Your task to perform on an android device: Open Google Maps Image 0: 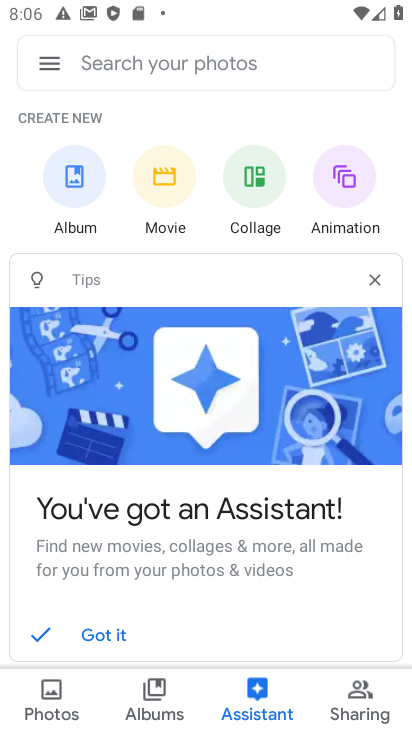
Step 0: click (366, 619)
Your task to perform on an android device: Open Google Maps Image 1: 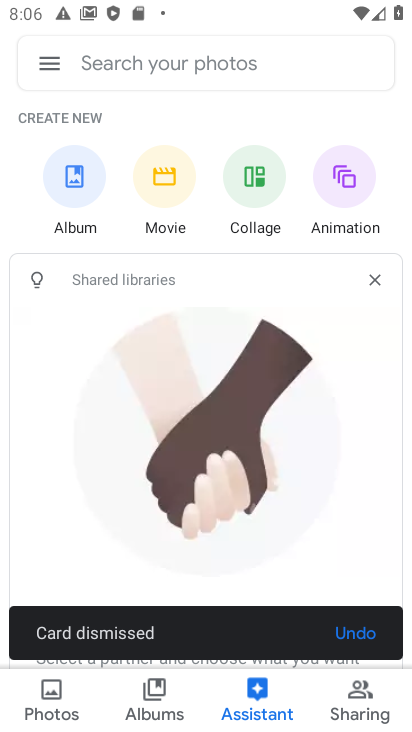
Step 1: press home button
Your task to perform on an android device: Open Google Maps Image 2: 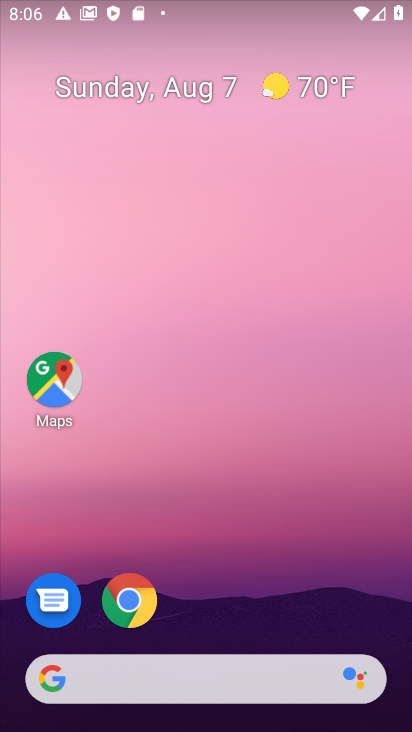
Step 2: drag from (193, 557) to (182, 75)
Your task to perform on an android device: Open Google Maps Image 3: 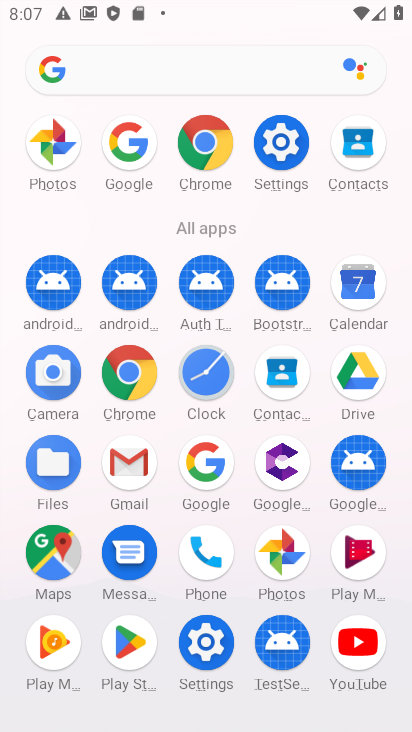
Step 3: click (228, 597)
Your task to perform on an android device: Open Google Maps Image 4: 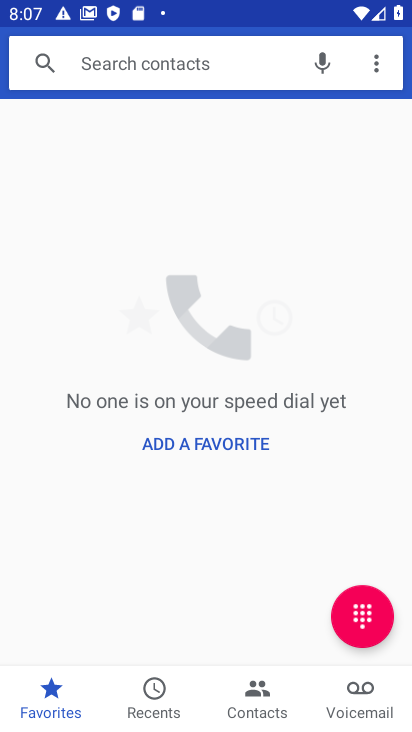
Step 4: press back button
Your task to perform on an android device: Open Google Maps Image 5: 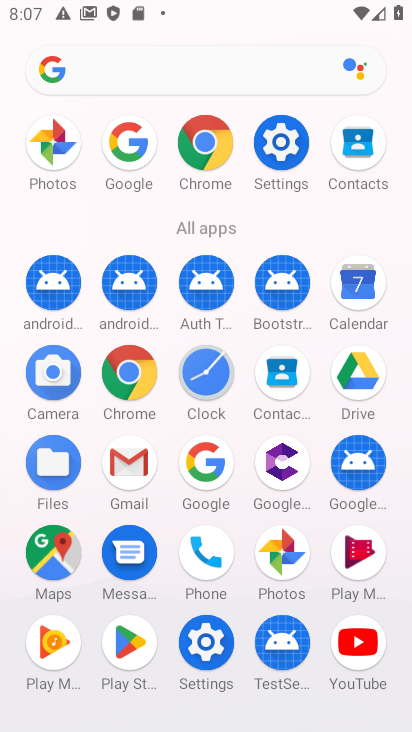
Step 5: click (52, 540)
Your task to perform on an android device: Open Google Maps Image 6: 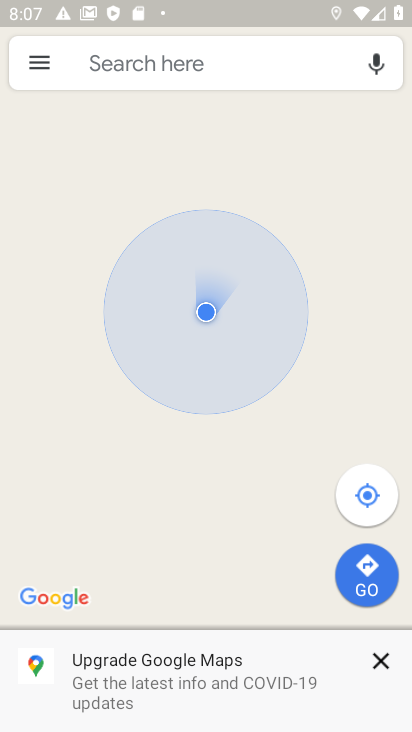
Step 6: task complete